Your task to perform on an android device: Open Chrome and go to the settings page Image 0: 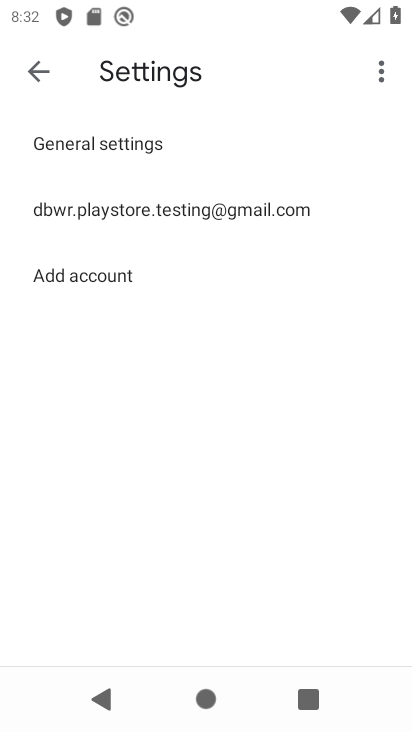
Step 0: press home button
Your task to perform on an android device: Open Chrome and go to the settings page Image 1: 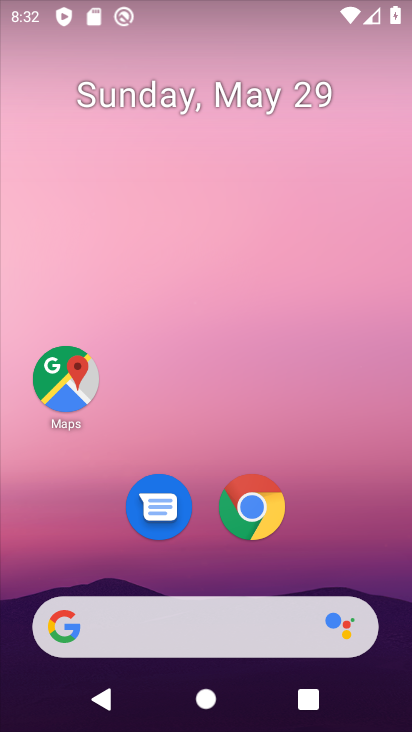
Step 1: click (264, 500)
Your task to perform on an android device: Open Chrome and go to the settings page Image 2: 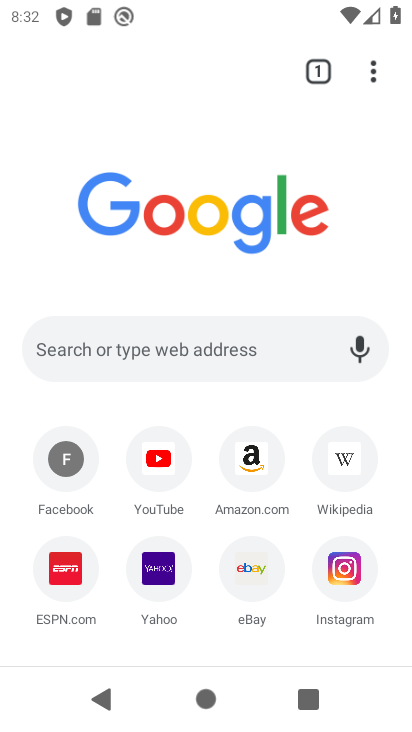
Step 2: task complete